Your task to perform on an android device: refresh tabs in the chrome app Image 0: 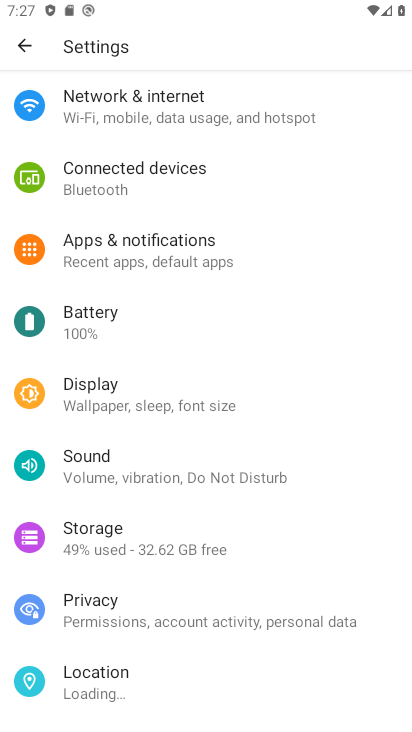
Step 0: press home button
Your task to perform on an android device: refresh tabs in the chrome app Image 1: 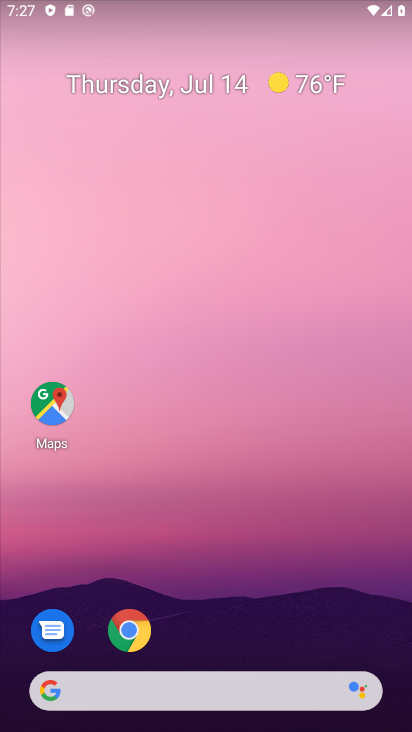
Step 1: drag from (274, 623) to (199, 328)
Your task to perform on an android device: refresh tabs in the chrome app Image 2: 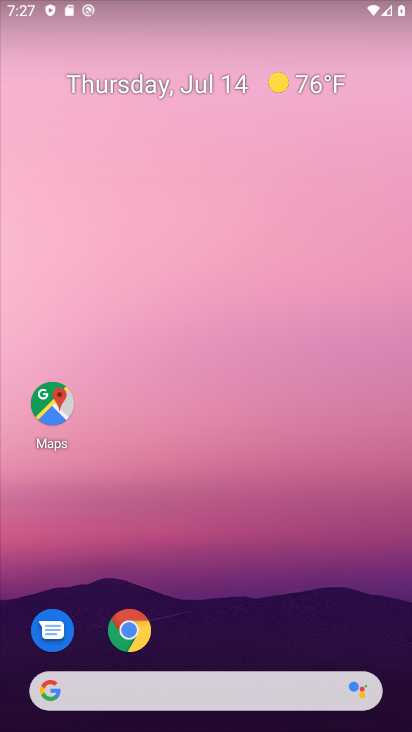
Step 2: click (135, 625)
Your task to perform on an android device: refresh tabs in the chrome app Image 3: 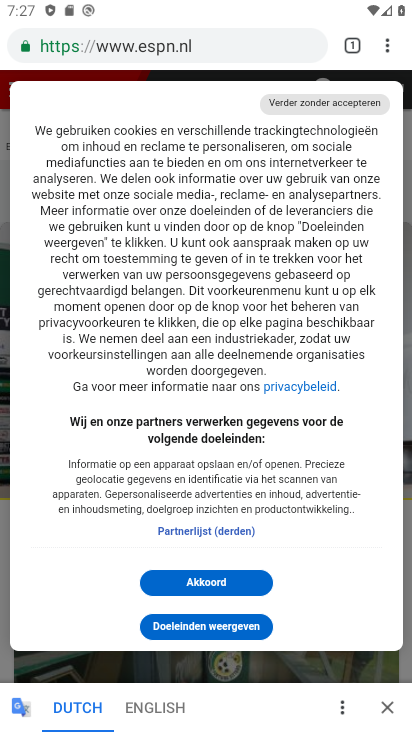
Step 3: click (402, 33)
Your task to perform on an android device: refresh tabs in the chrome app Image 4: 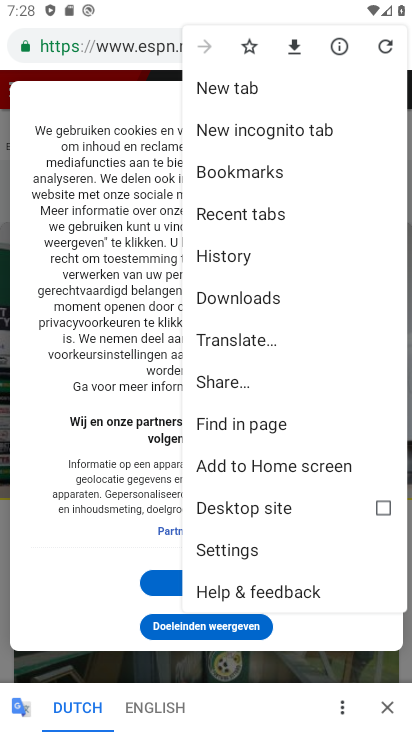
Step 4: click (390, 48)
Your task to perform on an android device: refresh tabs in the chrome app Image 5: 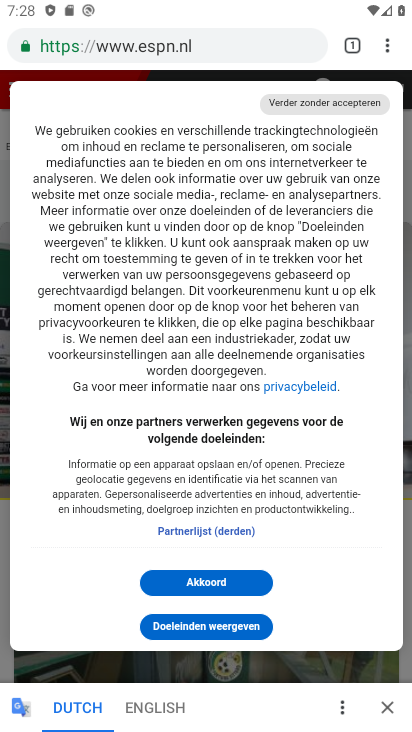
Step 5: task complete